Your task to perform on an android device: turn off wifi Image 0: 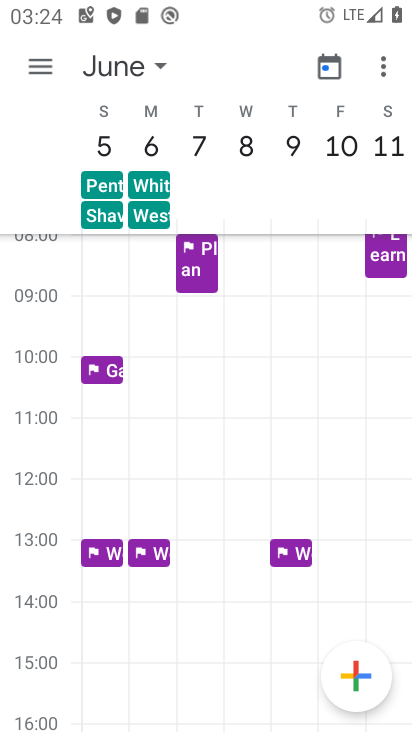
Step 0: press home button
Your task to perform on an android device: turn off wifi Image 1: 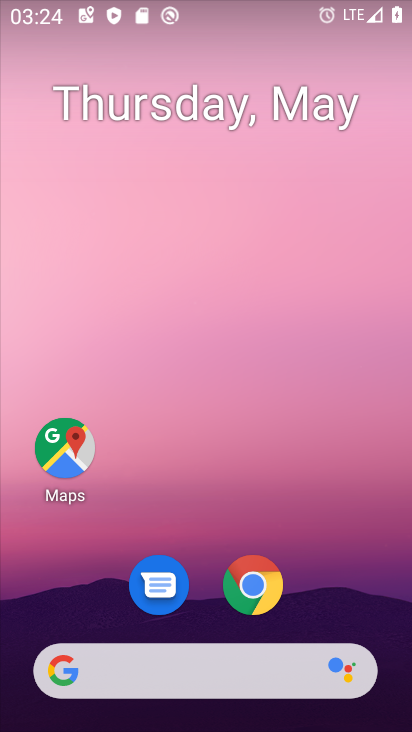
Step 1: drag from (239, 499) to (265, 76)
Your task to perform on an android device: turn off wifi Image 2: 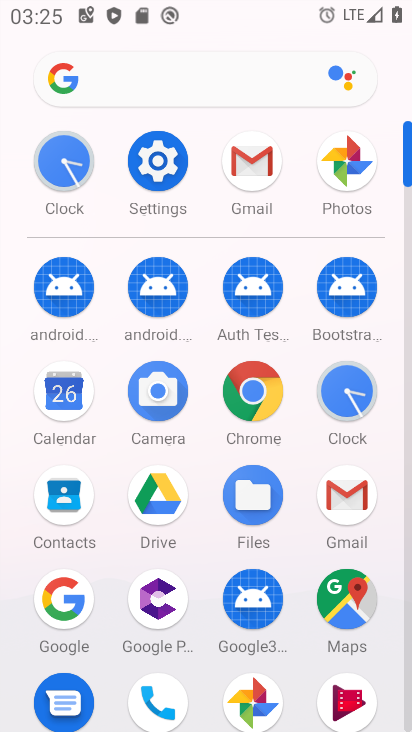
Step 2: click (167, 163)
Your task to perform on an android device: turn off wifi Image 3: 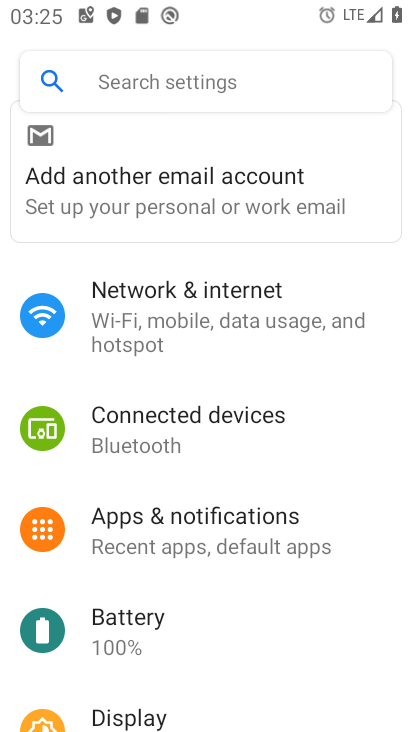
Step 3: click (187, 290)
Your task to perform on an android device: turn off wifi Image 4: 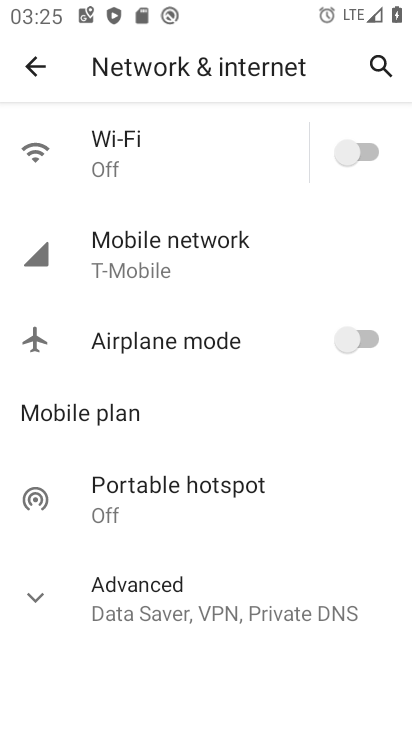
Step 4: task complete